Your task to perform on an android device: clear history in the chrome app Image 0: 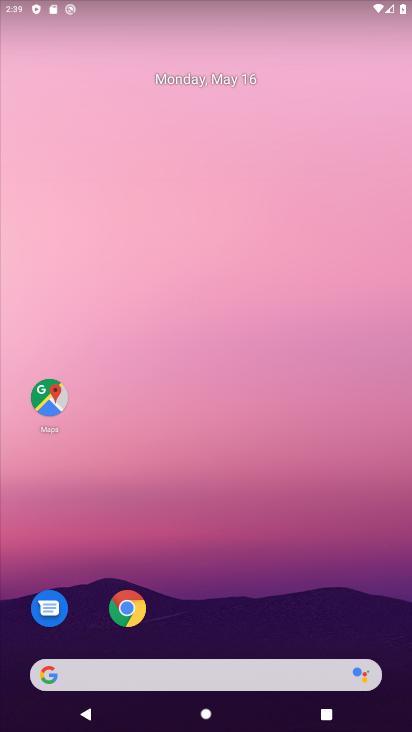
Step 0: click (126, 609)
Your task to perform on an android device: clear history in the chrome app Image 1: 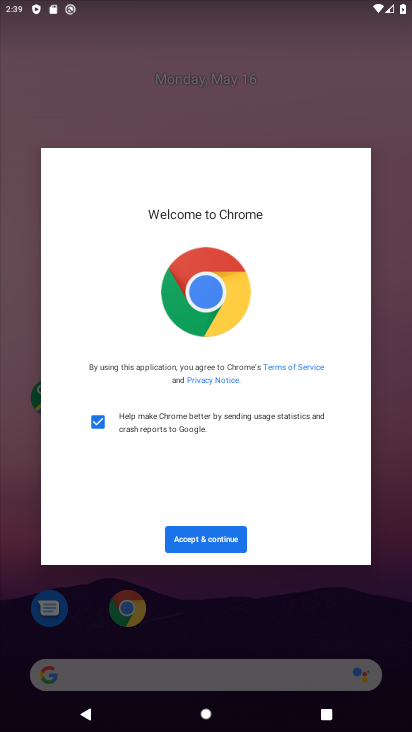
Step 1: click (190, 543)
Your task to perform on an android device: clear history in the chrome app Image 2: 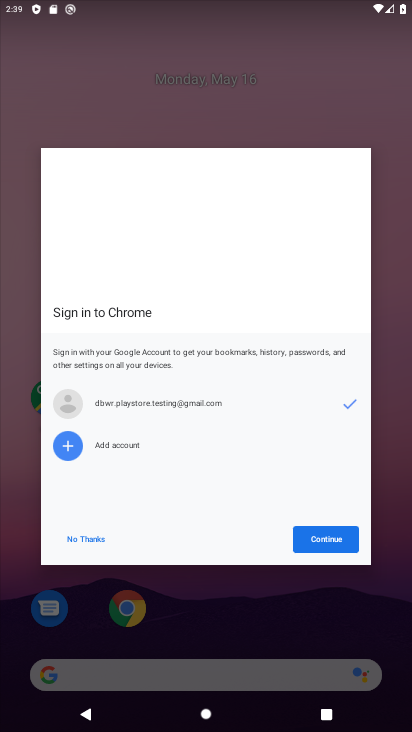
Step 2: click (312, 539)
Your task to perform on an android device: clear history in the chrome app Image 3: 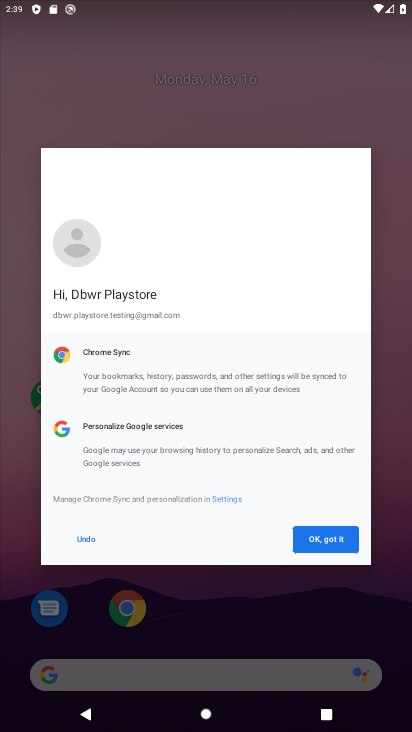
Step 3: click (322, 540)
Your task to perform on an android device: clear history in the chrome app Image 4: 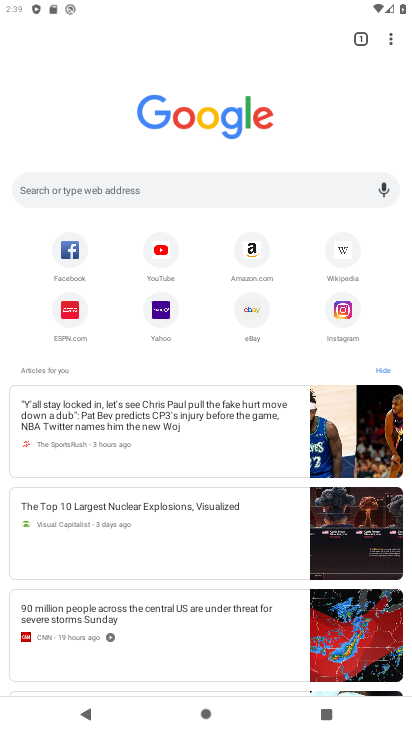
Step 4: click (392, 39)
Your task to perform on an android device: clear history in the chrome app Image 5: 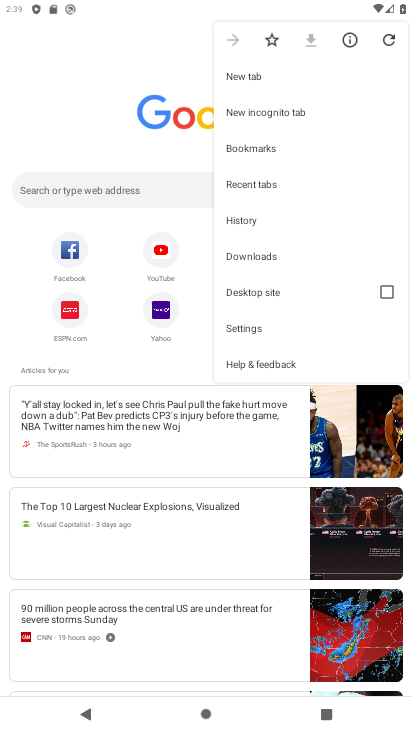
Step 5: click (249, 221)
Your task to perform on an android device: clear history in the chrome app Image 6: 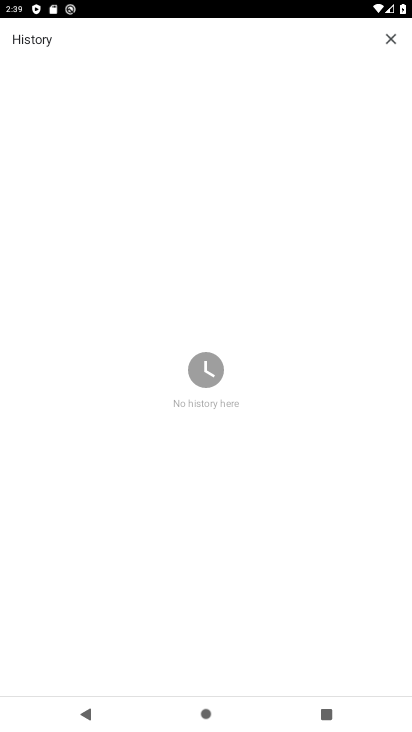
Step 6: task complete